Your task to perform on an android device: Search for Mexican restaurants on Maps Image 0: 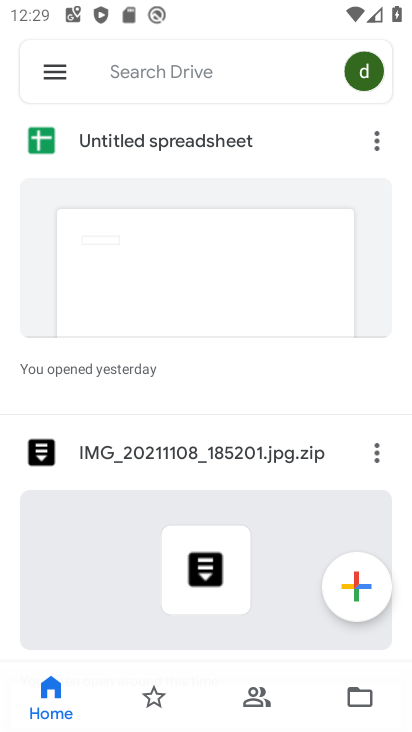
Step 0: press home button
Your task to perform on an android device: Search for Mexican restaurants on Maps Image 1: 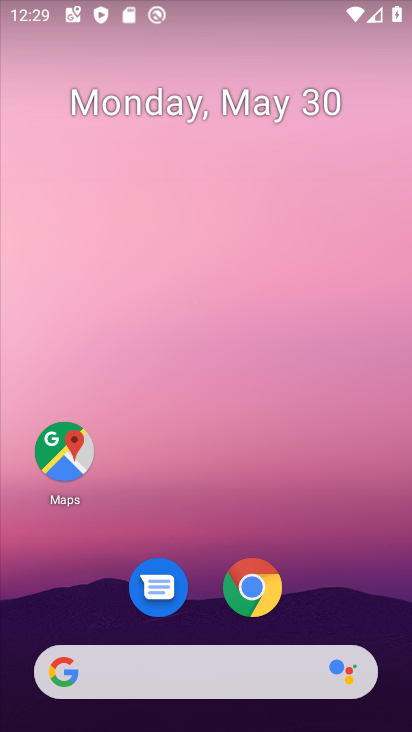
Step 1: click (59, 463)
Your task to perform on an android device: Search for Mexican restaurants on Maps Image 2: 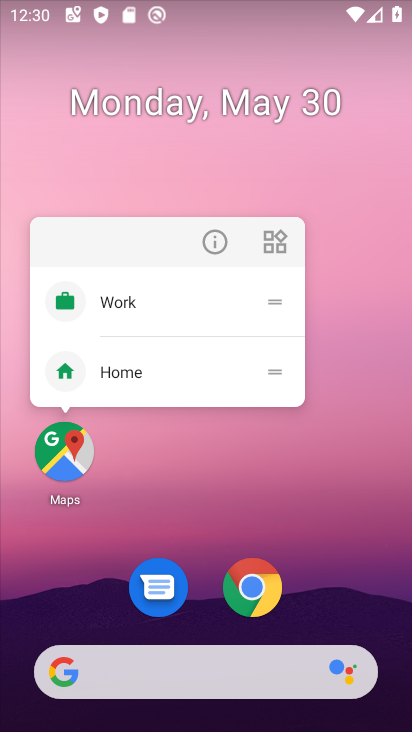
Step 2: click (60, 469)
Your task to perform on an android device: Search for Mexican restaurants on Maps Image 3: 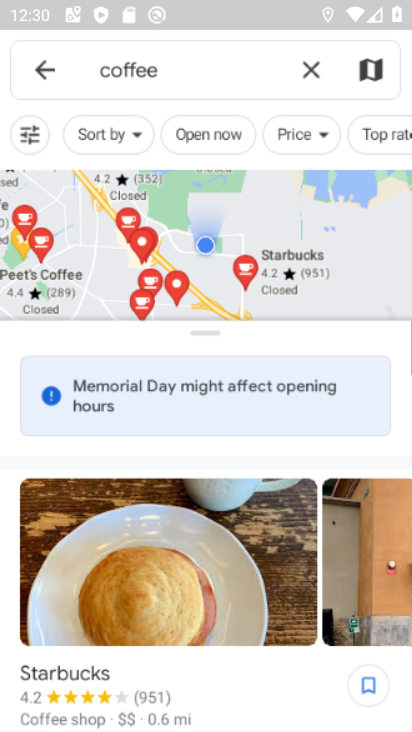
Step 3: click (303, 65)
Your task to perform on an android device: Search for Mexican restaurants on Maps Image 4: 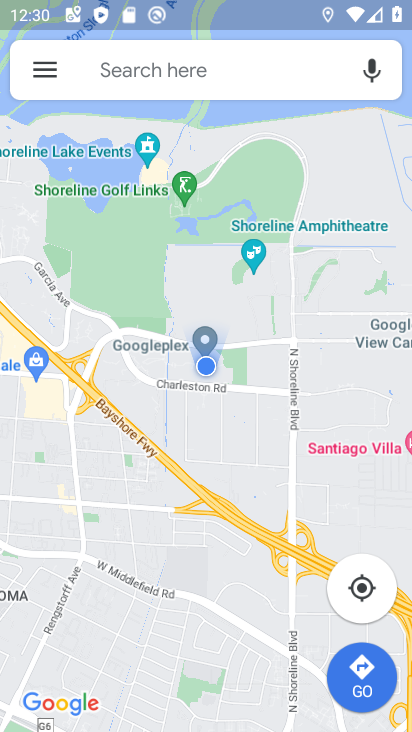
Step 4: click (172, 78)
Your task to perform on an android device: Search for Mexican restaurants on Maps Image 5: 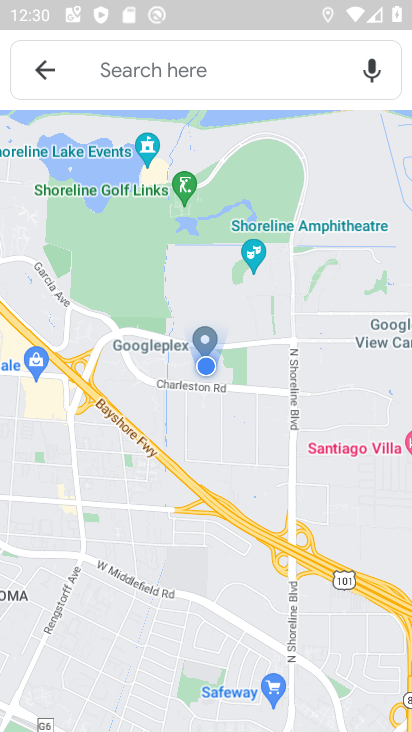
Step 5: click (173, 79)
Your task to perform on an android device: Search for Mexican restaurants on Maps Image 6: 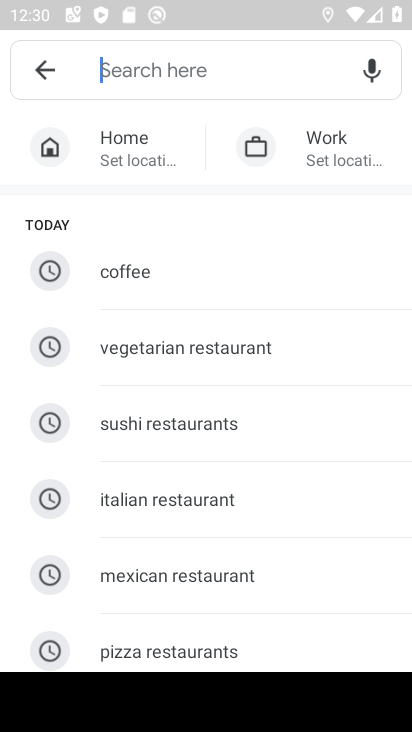
Step 6: click (167, 583)
Your task to perform on an android device: Search for Mexican restaurants on Maps Image 7: 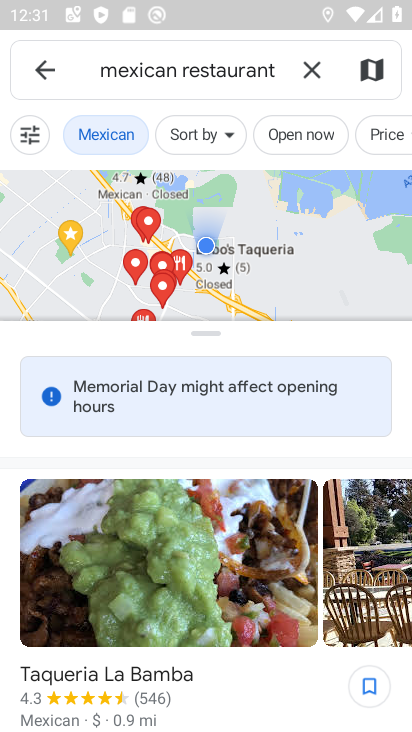
Step 7: task complete